Your task to perform on an android device: turn smart compose on in the gmail app Image 0: 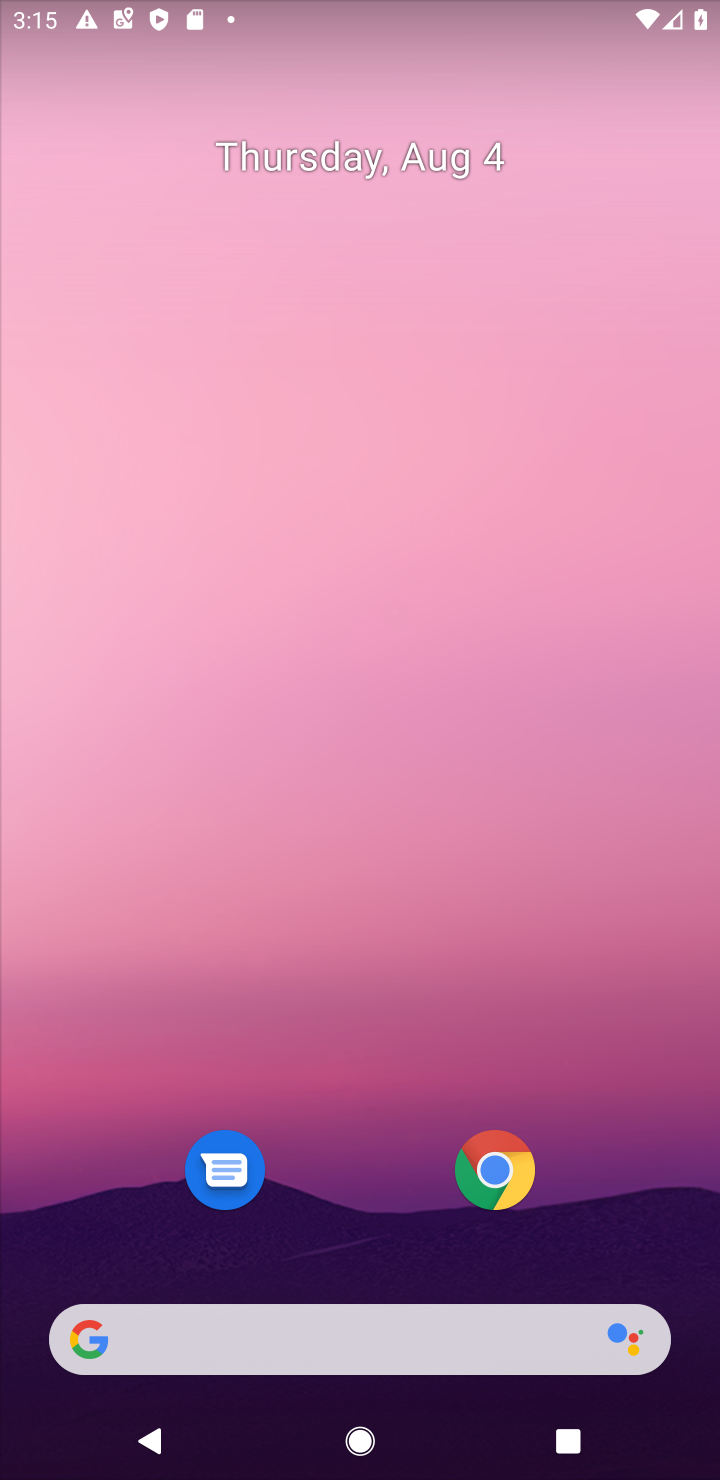
Step 0: drag from (664, 1119) to (606, 231)
Your task to perform on an android device: turn smart compose on in the gmail app Image 1: 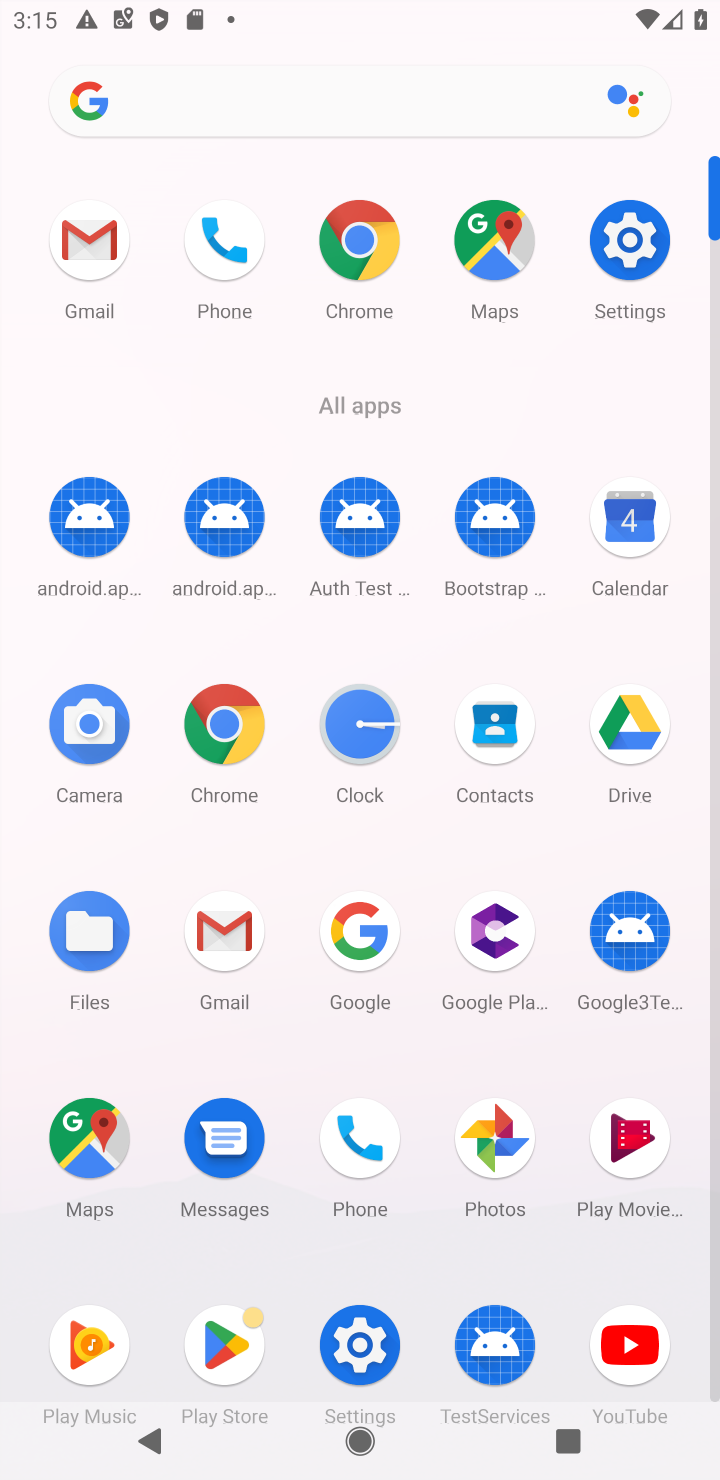
Step 1: click (221, 935)
Your task to perform on an android device: turn smart compose on in the gmail app Image 2: 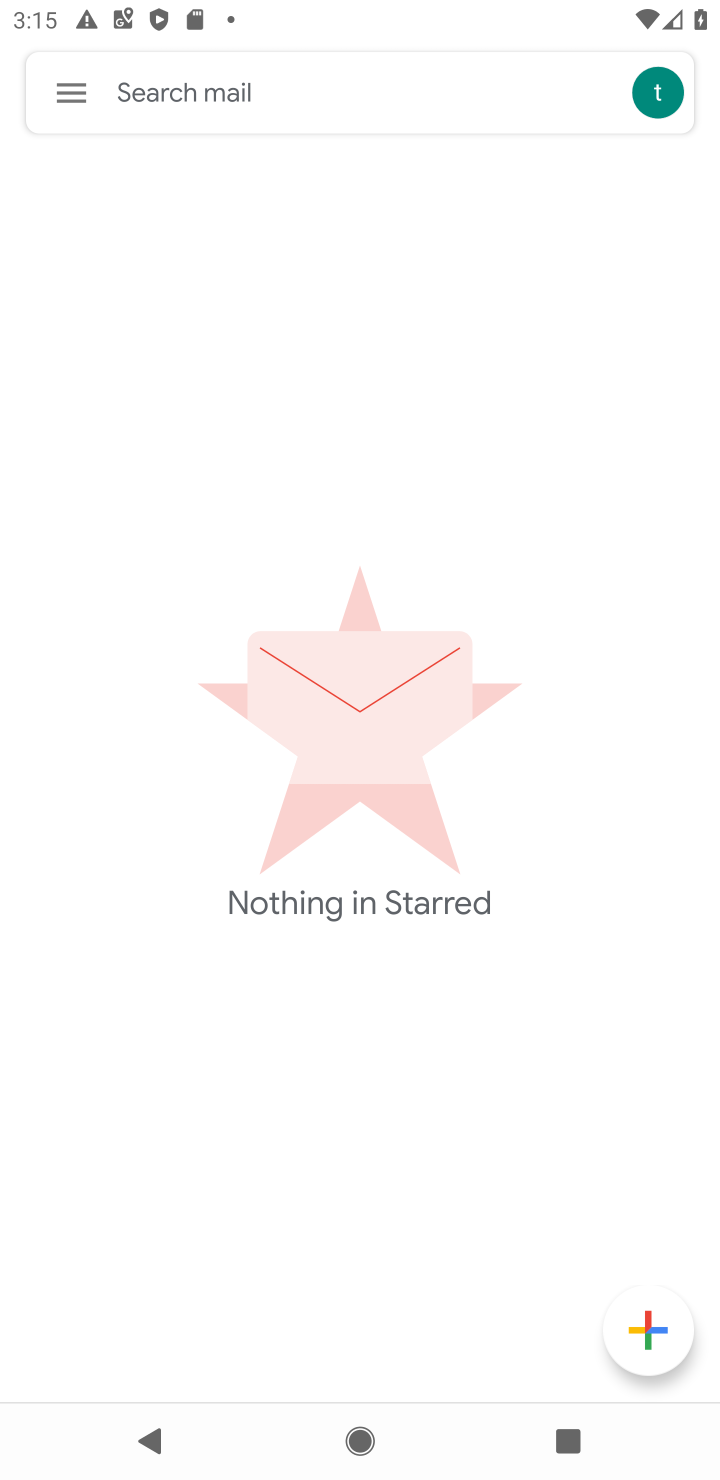
Step 2: click (67, 103)
Your task to perform on an android device: turn smart compose on in the gmail app Image 3: 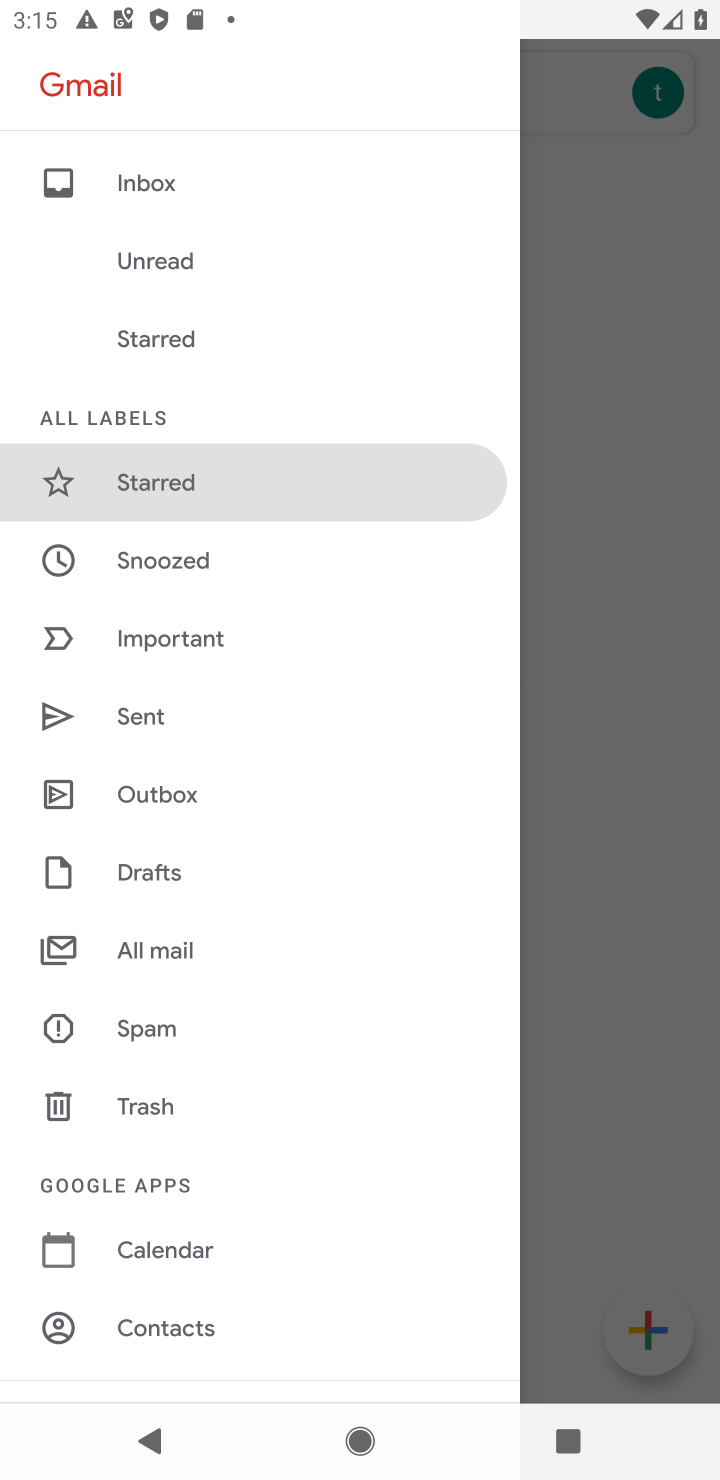
Step 3: drag from (230, 1240) to (276, 753)
Your task to perform on an android device: turn smart compose on in the gmail app Image 4: 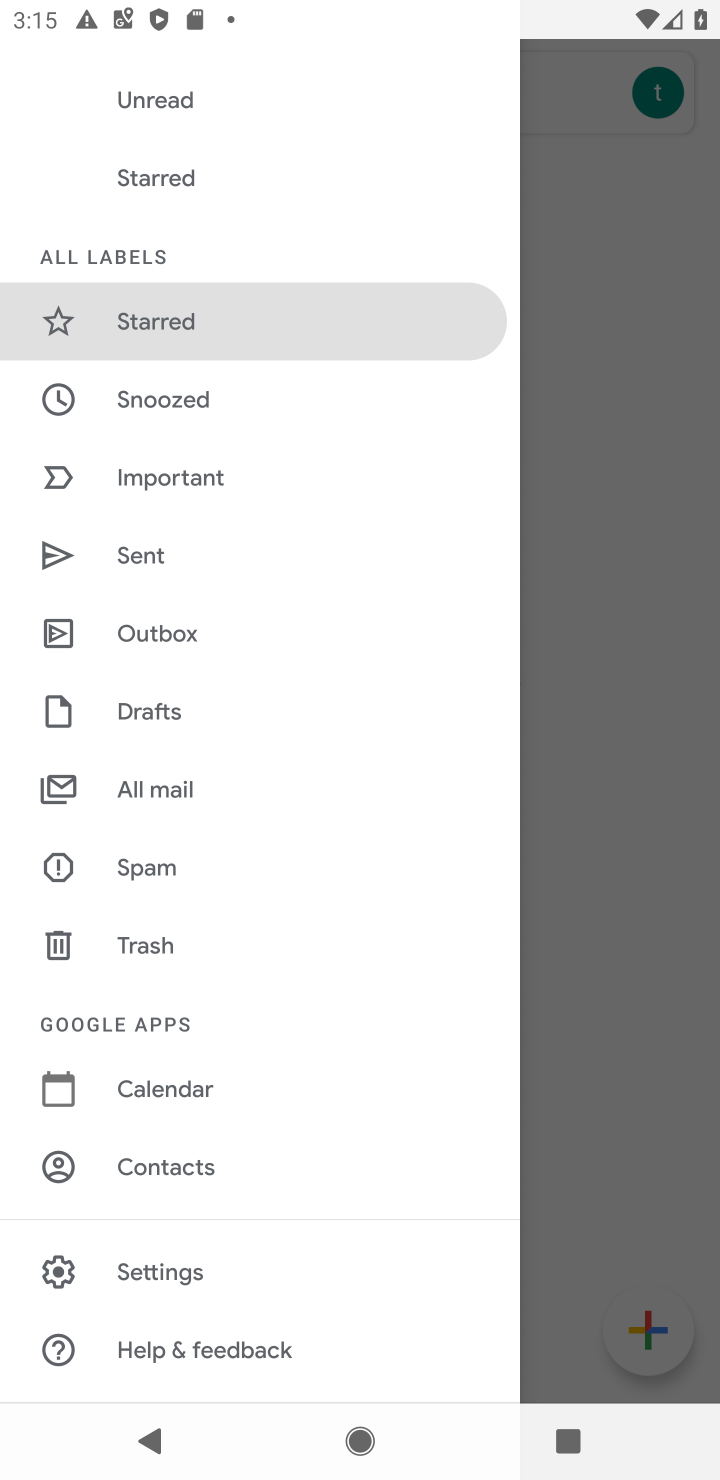
Step 4: click (134, 1266)
Your task to perform on an android device: turn smart compose on in the gmail app Image 5: 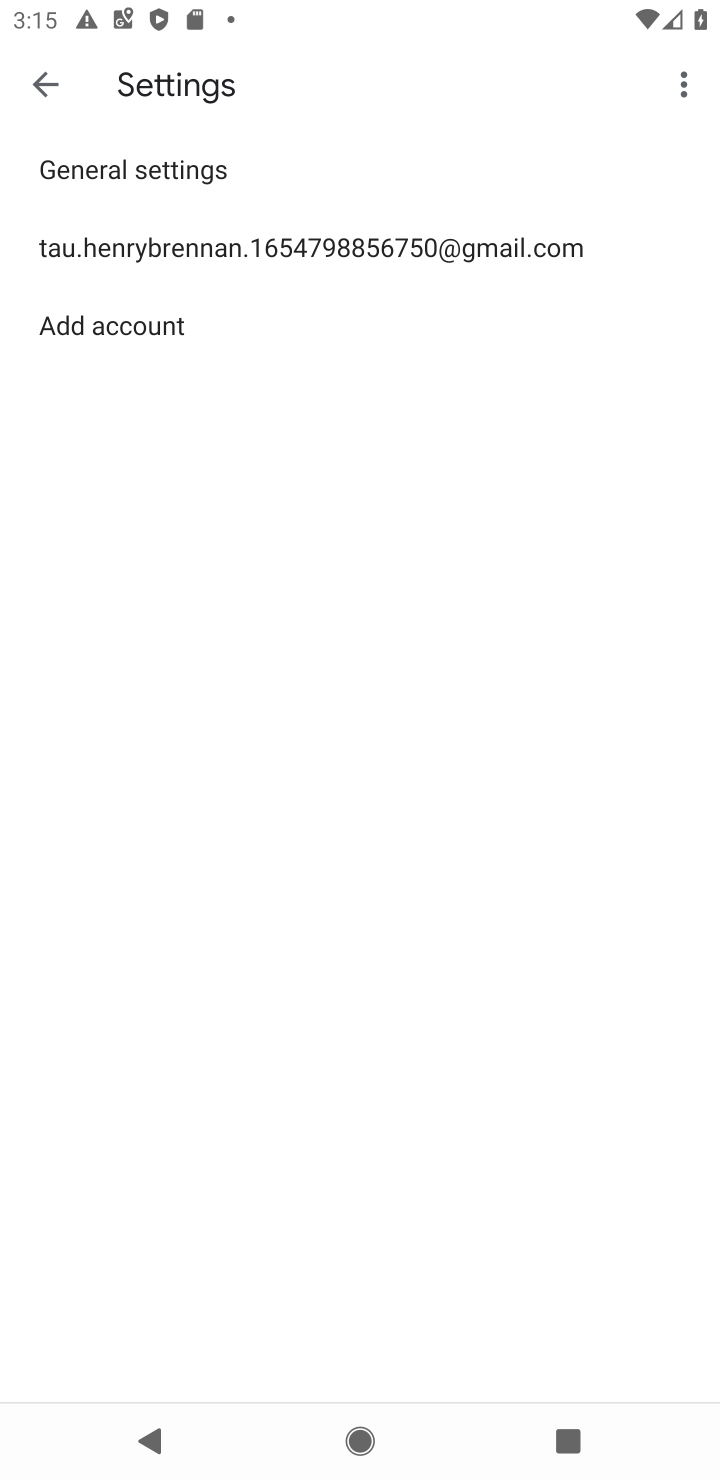
Step 5: click (271, 226)
Your task to perform on an android device: turn smart compose on in the gmail app Image 6: 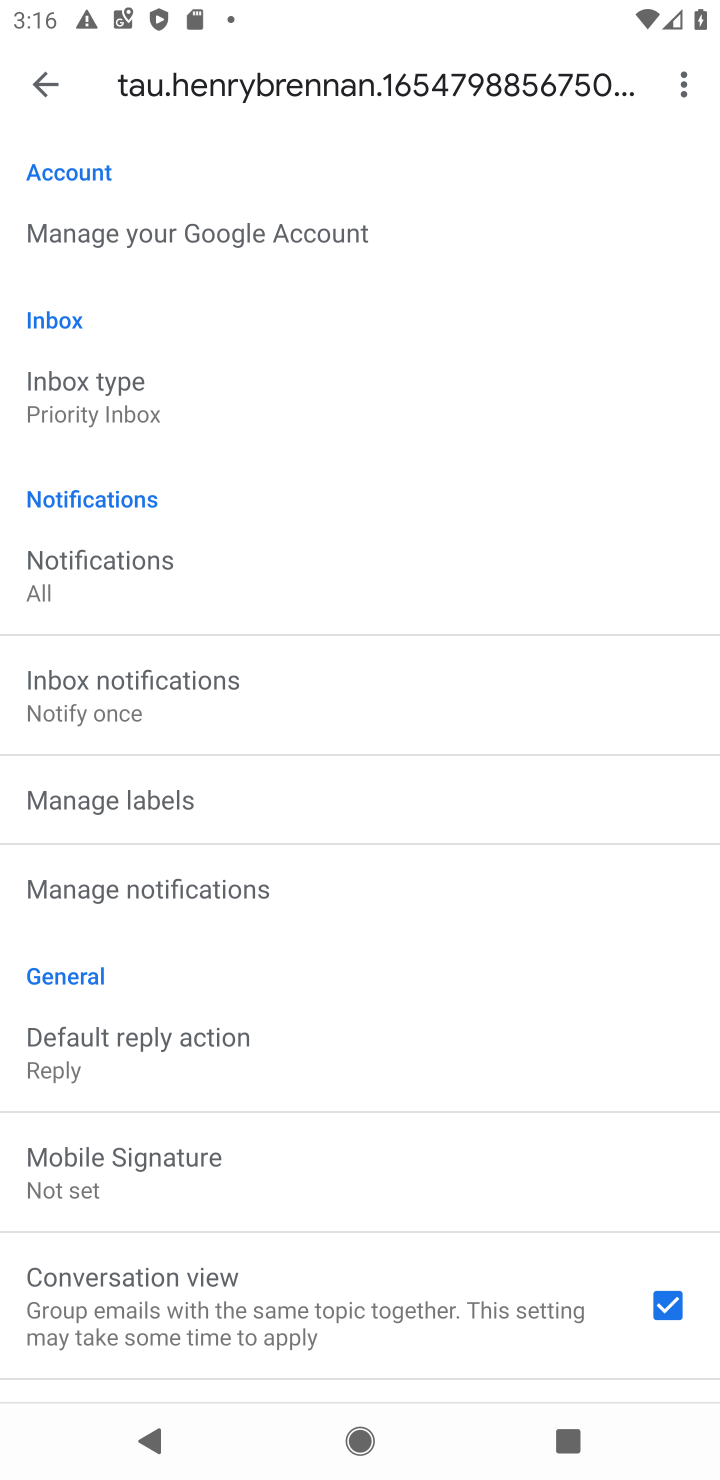
Step 6: task complete